Your task to perform on an android device: open chrome privacy settings Image 0: 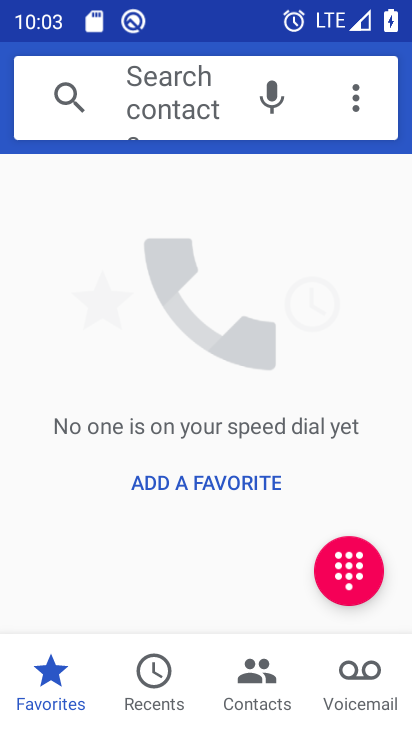
Step 0: press home button
Your task to perform on an android device: open chrome privacy settings Image 1: 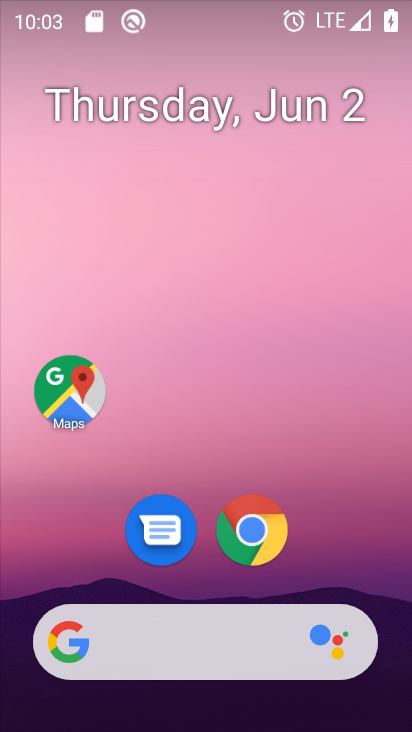
Step 1: drag from (178, 599) to (171, 399)
Your task to perform on an android device: open chrome privacy settings Image 2: 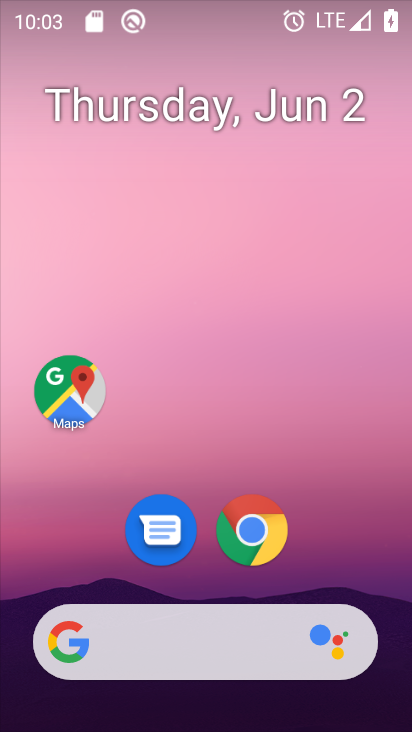
Step 2: click (264, 537)
Your task to perform on an android device: open chrome privacy settings Image 3: 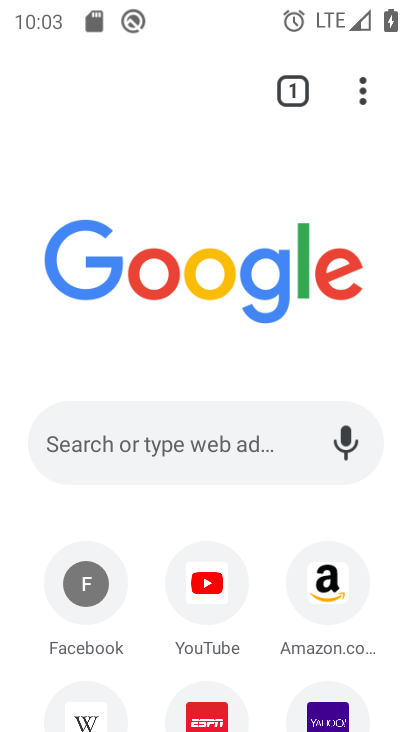
Step 3: click (353, 83)
Your task to perform on an android device: open chrome privacy settings Image 4: 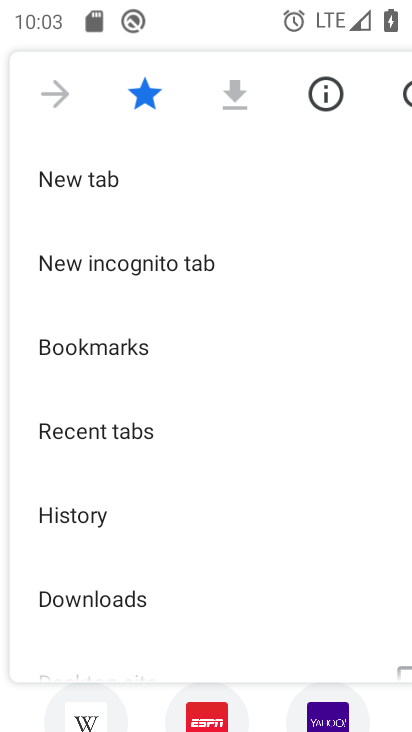
Step 4: drag from (196, 626) to (196, 228)
Your task to perform on an android device: open chrome privacy settings Image 5: 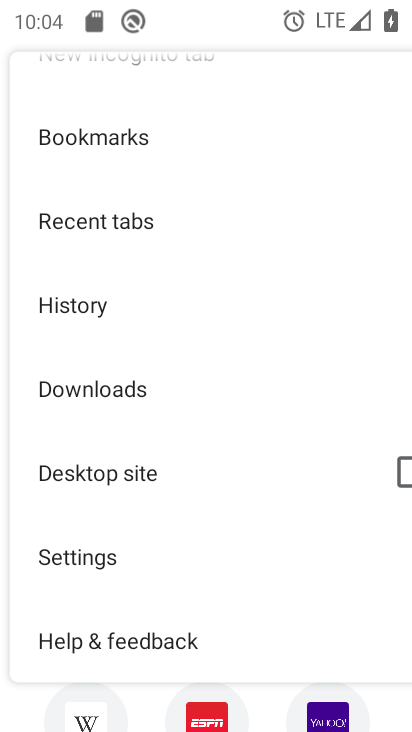
Step 5: click (107, 572)
Your task to perform on an android device: open chrome privacy settings Image 6: 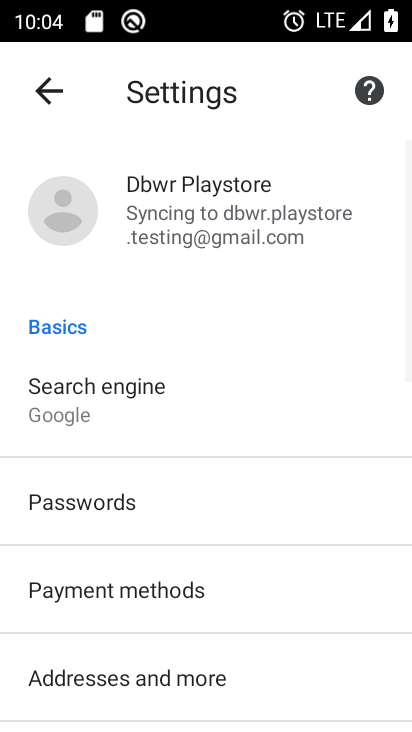
Step 6: drag from (150, 684) to (141, 274)
Your task to perform on an android device: open chrome privacy settings Image 7: 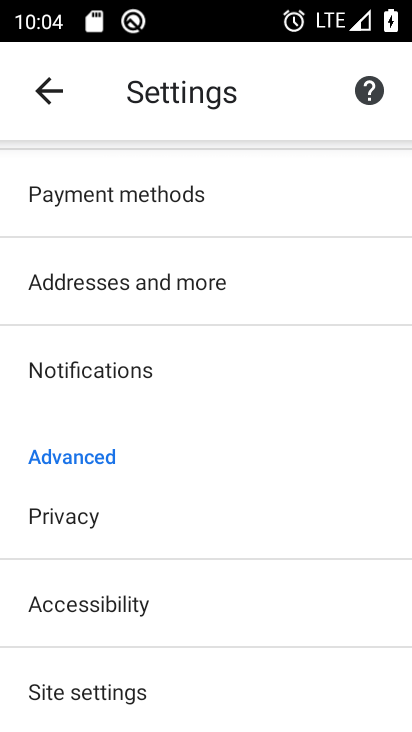
Step 7: click (75, 520)
Your task to perform on an android device: open chrome privacy settings Image 8: 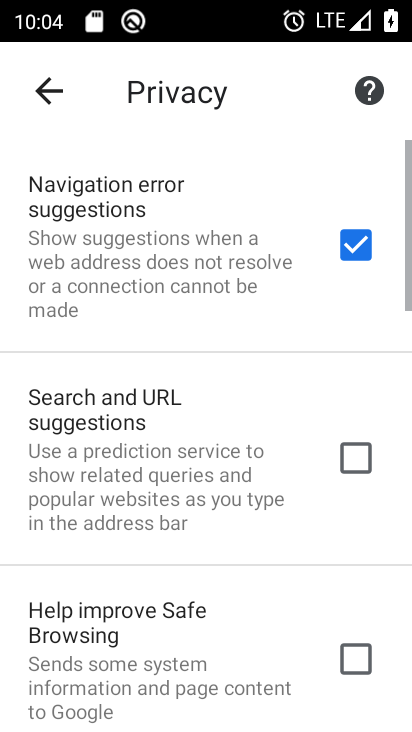
Step 8: task complete